Your task to perform on an android device: find which apps use the phone's location Image 0: 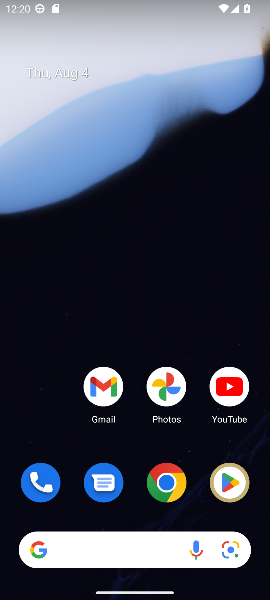
Step 0: drag from (126, 455) to (124, 144)
Your task to perform on an android device: find which apps use the phone's location Image 1: 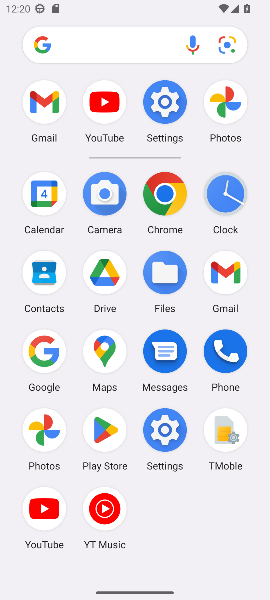
Step 1: click (166, 108)
Your task to perform on an android device: find which apps use the phone's location Image 2: 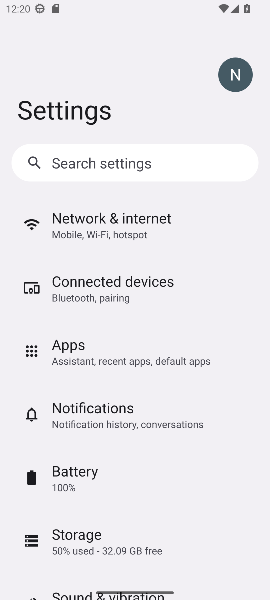
Step 2: drag from (116, 520) to (131, 233)
Your task to perform on an android device: find which apps use the phone's location Image 3: 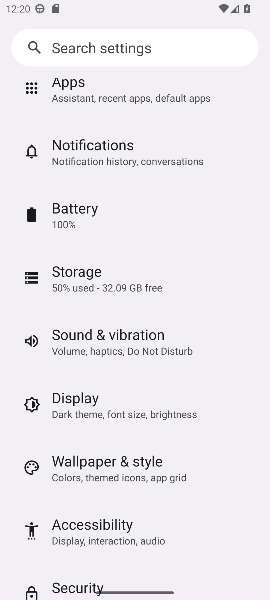
Step 3: drag from (154, 477) to (167, 231)
Your task to perform on an android device: find which apps use the phone's location Image 4: 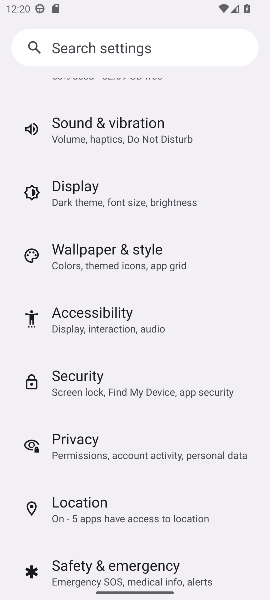
Step 4: click (122, 520)
Your task to perform on an android device: find which apps use the phone's location Image 5: 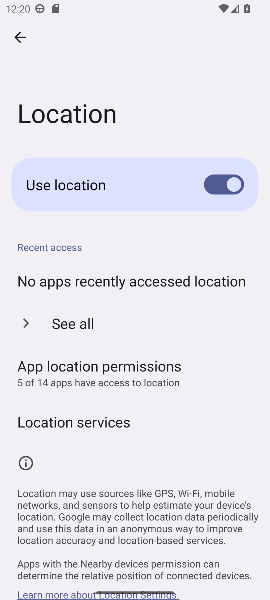
Step 5: click (98, 388)
Your task to perform on an android device: find which apps use the phone's location Image 6: 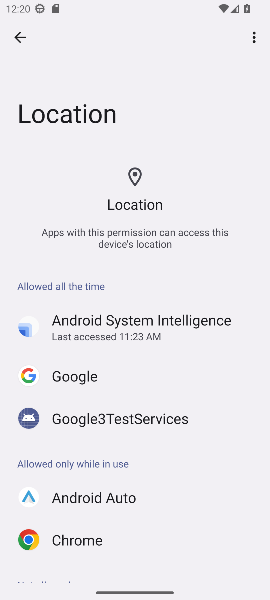
Step 6: task complete